Your task to perform on an android device: Open the map Image 0: 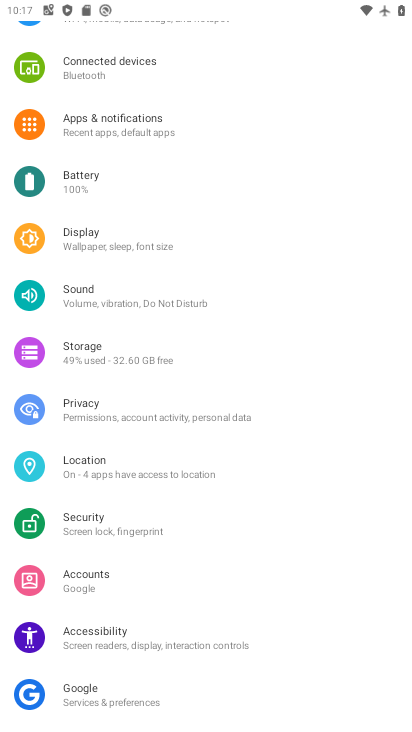
Step 0: press home button
Your task to perform on an android device: Open the map Image 1: 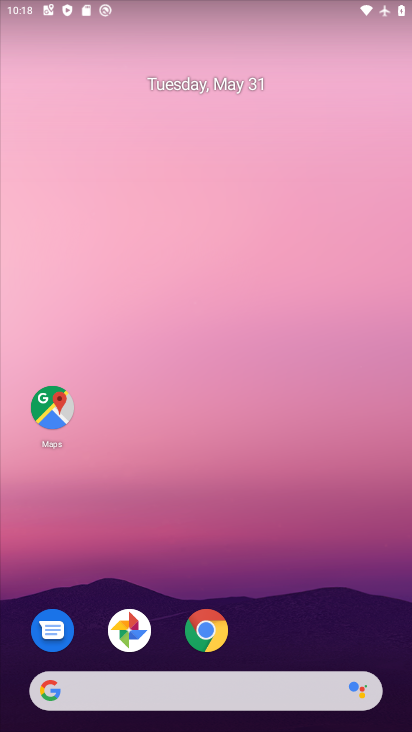
Step 1: click (59, 397)
Your task to perform on an android device: Open the map Image 2: 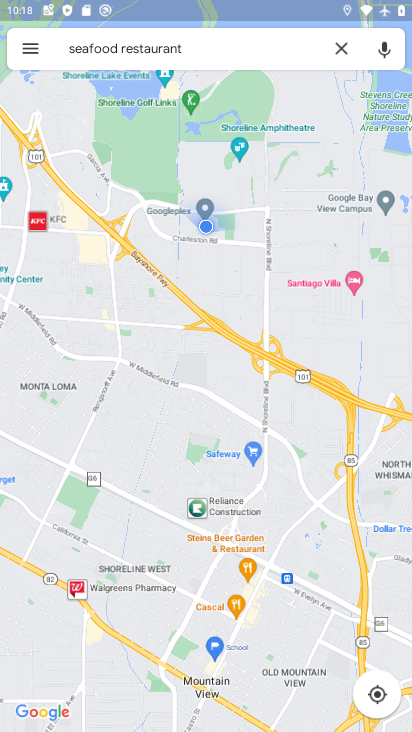
Step 2: task complete